Your task to perform on an android device: Open settings Image 0: 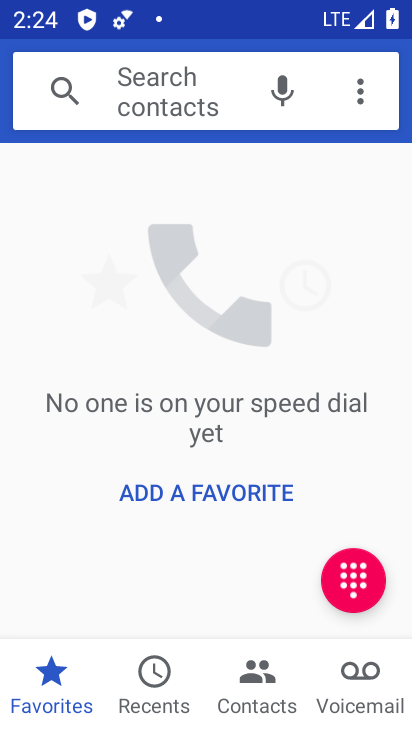
Step 0: press home button
Your task to perform on an android device: Open settings Image 1: 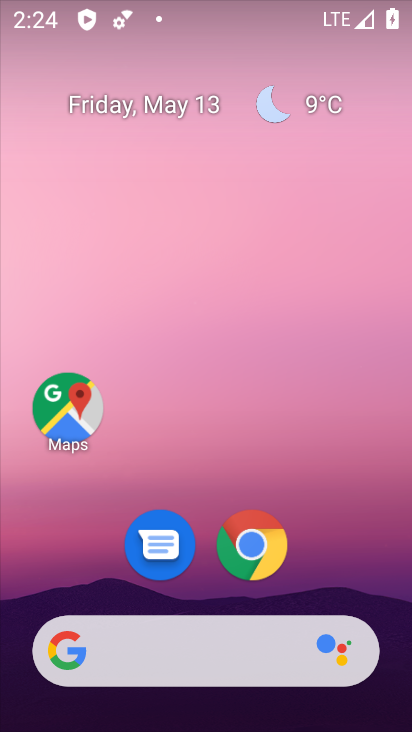
Step 1: drag from (298, 573) to (310, 133)
Your task to perform on an android device: Open settings Image 2: 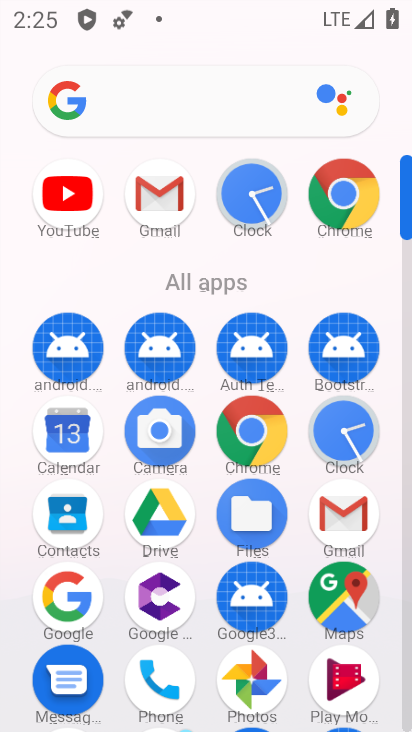
Step 2: drag from (301, 298) to (307, 101)
Your task to perform on an android device: Open settings Image 3: 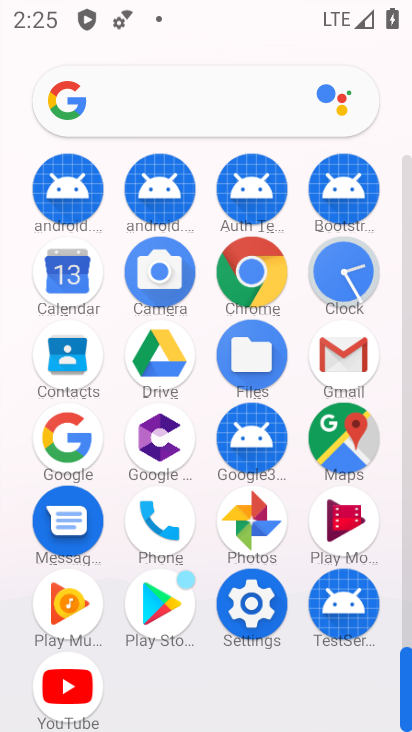
Step 3: click (251, 607)
Your task to perform on an android device: Open settings Image 4: 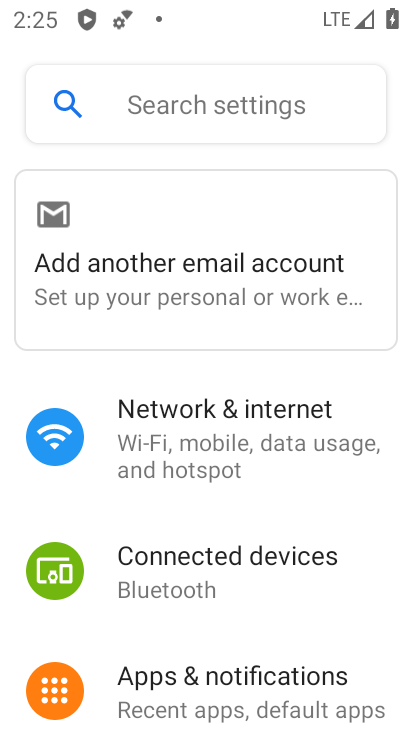
Step 4: task complete